Your task to perform on an android device: Go to Yahoo.com Image 0: 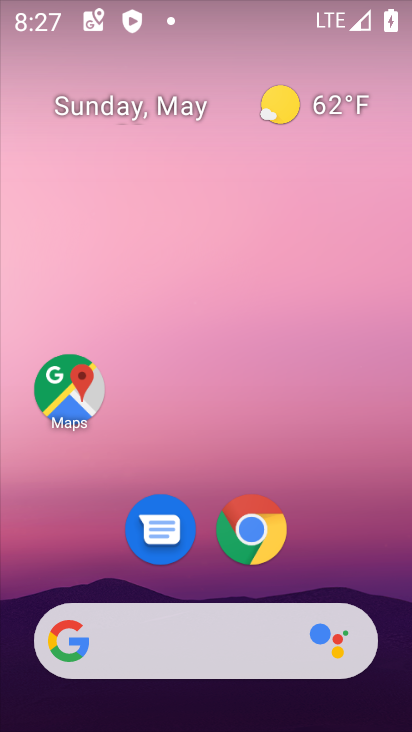
Step 0: click (278, 539)
Your task to perform on an android device: Go to Yahoo.com Image 1: 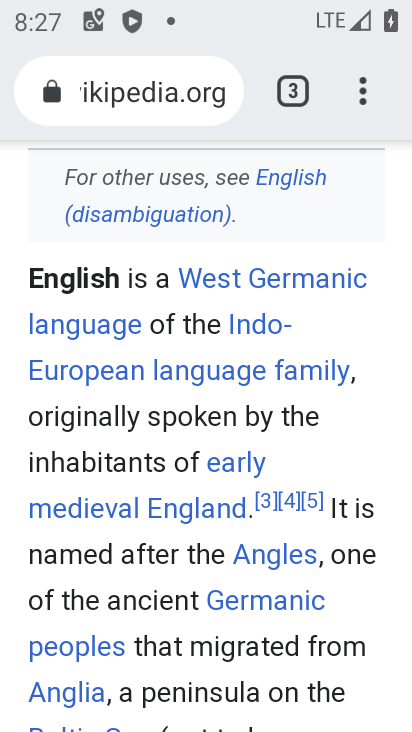
Step 1: click (294, 101)
Your task to perform on an android device: Go to Yahoo.com Image 2: 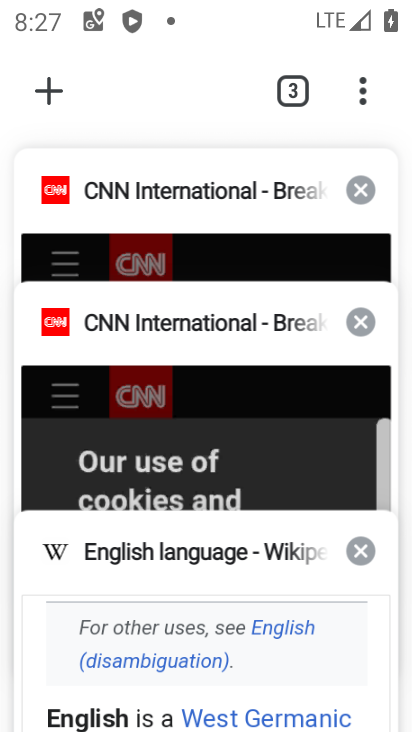
Step 2: click (49, 84)
Your task to perform on an android device: Go to Yahoo.com Image 3: 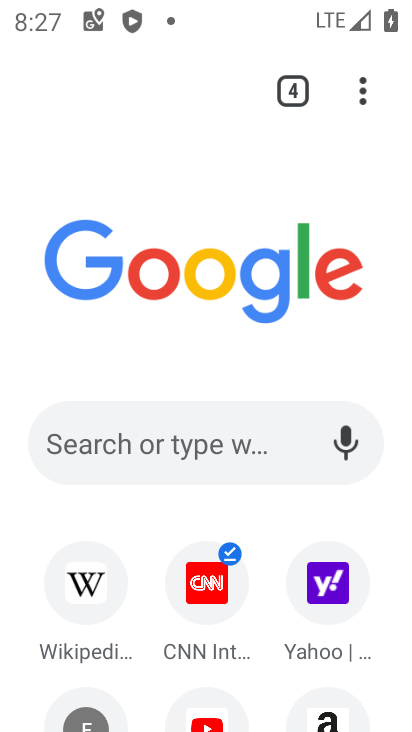
Step 3: drag from (211, 611) to (285, 184)
Your task to perform on an android device: Go to Yahoo.com Image 4: 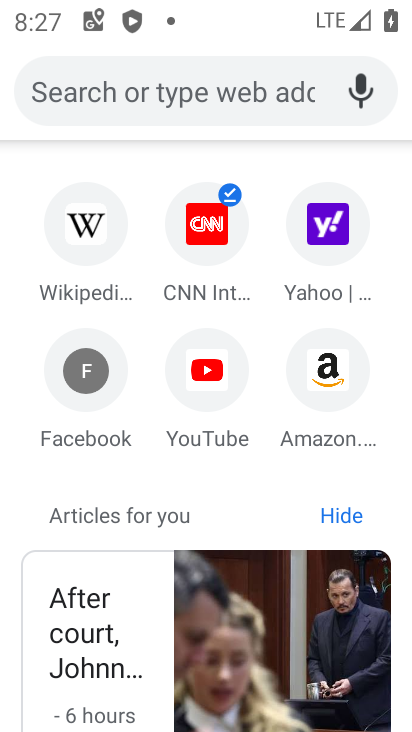
Step 4: click (320, 250)
Your task to perform on an android device: Go to Yahoo.com Image 5: 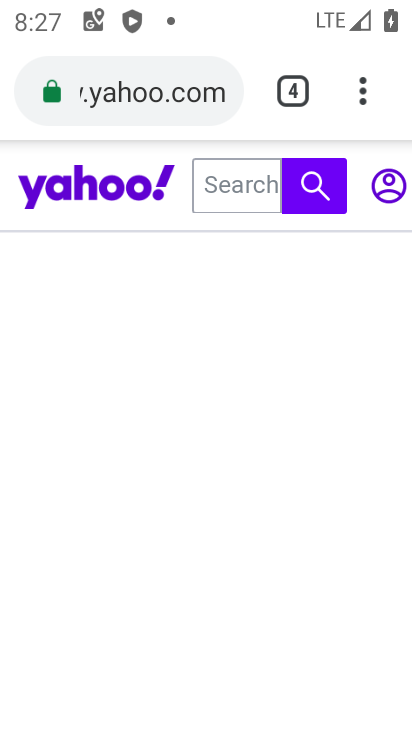
Step 5: task complete